Your task to perform on an android device: Go to Wikipedia Image 0: 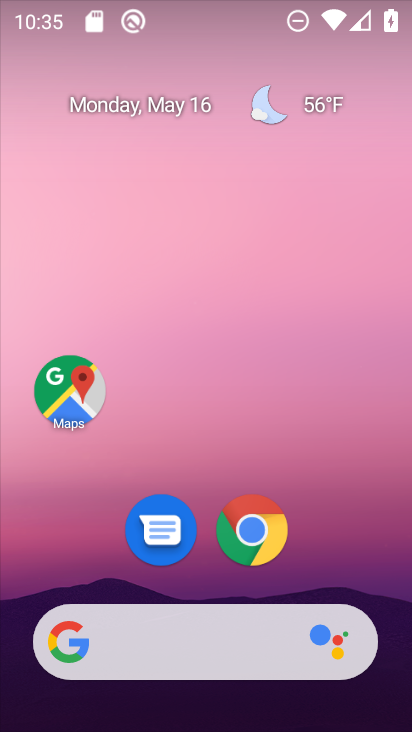
Step 0: click (259, 519)
Your task to perform on an android device: Go to Wikipedia Image 1: 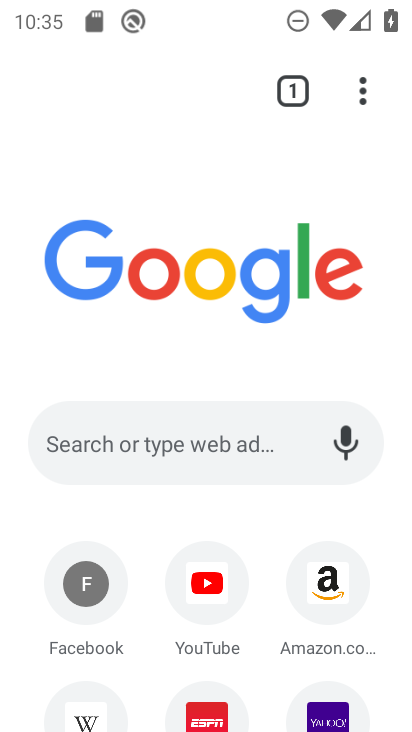
Step 1: click (89, 697)
Your task to perform on an android device: Go to Wikipedia Image 2: 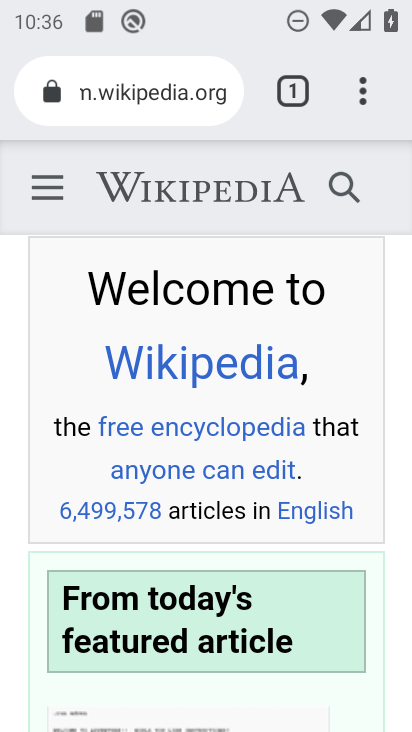
Step 2: task complete